Your task to perform on an android device: Open the Play Movies app and select the watchlist tab. Image 0: 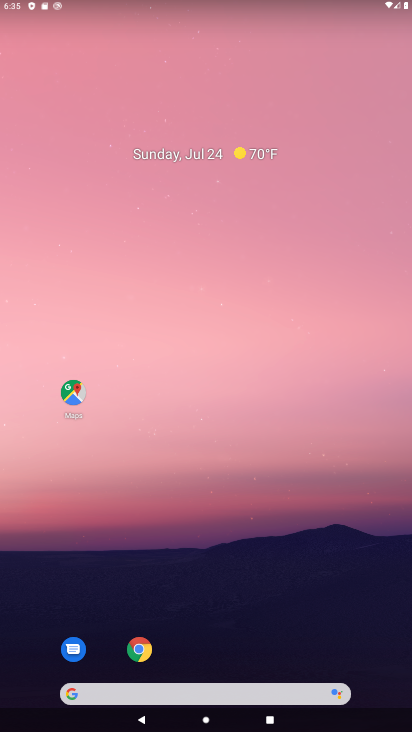
Step 0: drag from (249, 588) to (201, 117)
Your task to perform on an android device: Open the Play Movies app and select the watchlist tab. Image 1: 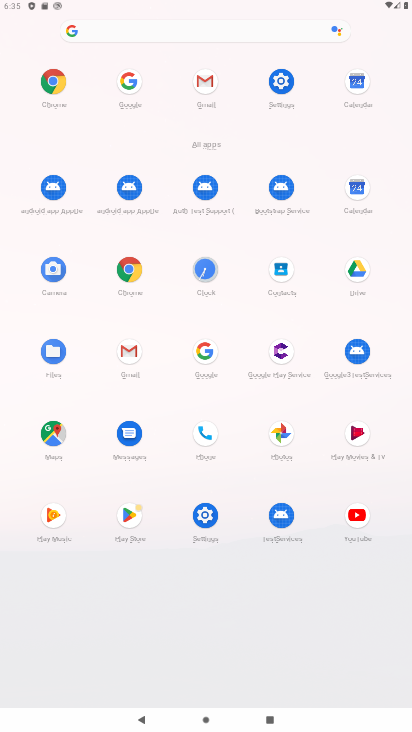
Step 1: click (352, 430)
Your task to perform on an android device: Open the Play Movies app and select the watchlist tab. Image 2: 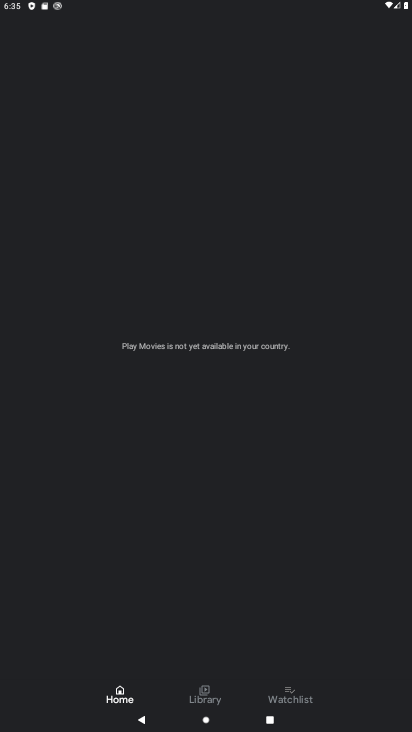
Step 2: click (292, 691)
Your task to perform on an android device: Open the Play Movies app and select the watchlist tab. Image 3: 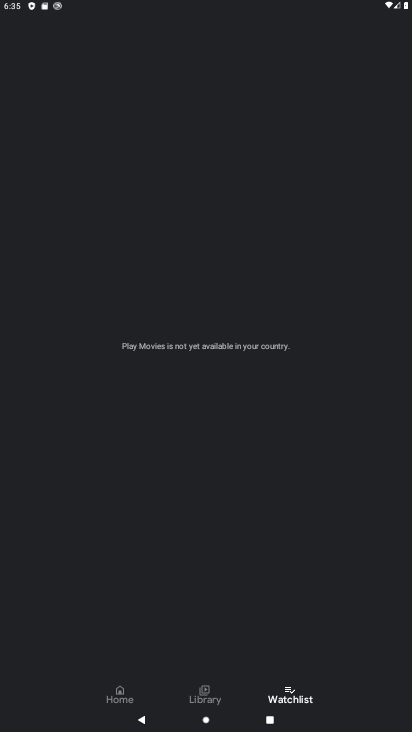
Step 3: task complete